Your task to perform on an android device: toggle airplane mode Image 0: 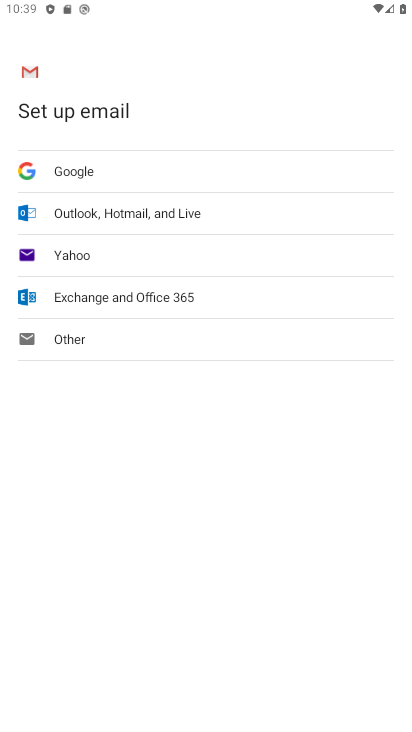
Step 0: press home button
Your task to perform on an android device: toggle airplane mode Image 1: 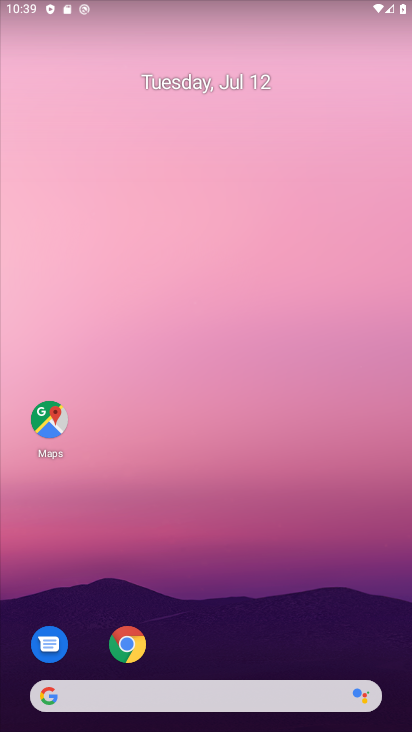
Step 1: drag from (246, 681) to (232, 294)
Your task to perform on an android device: toggle airplane mode Image 2: 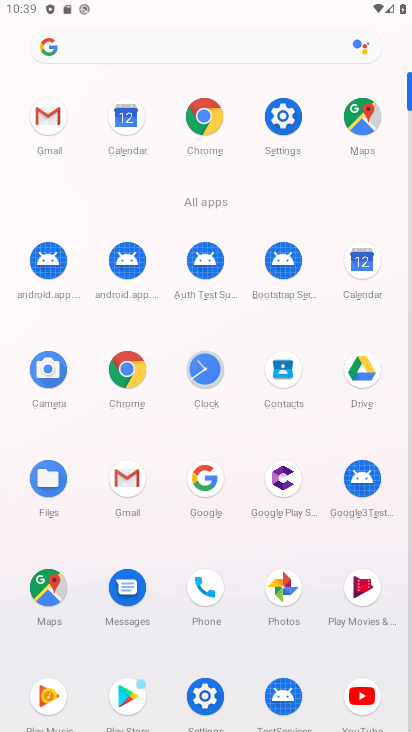
Step 2: click (281, 119)
Your task to perform on an android device: toggle airplane mode Image 3: 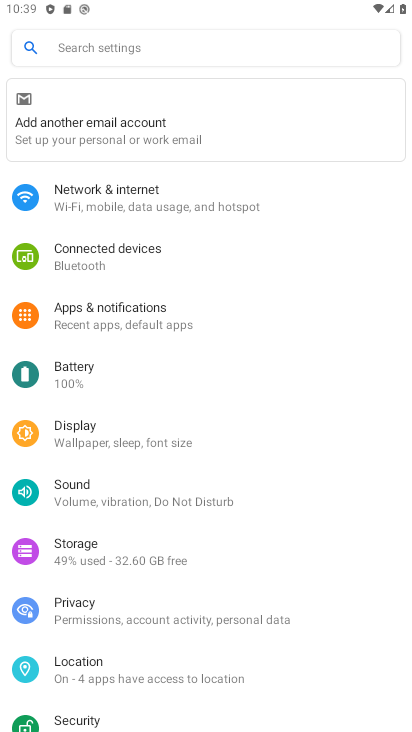
Step 3: click (147, 207)
Your task to perform on an android device: toggle airplane mode Image 4: 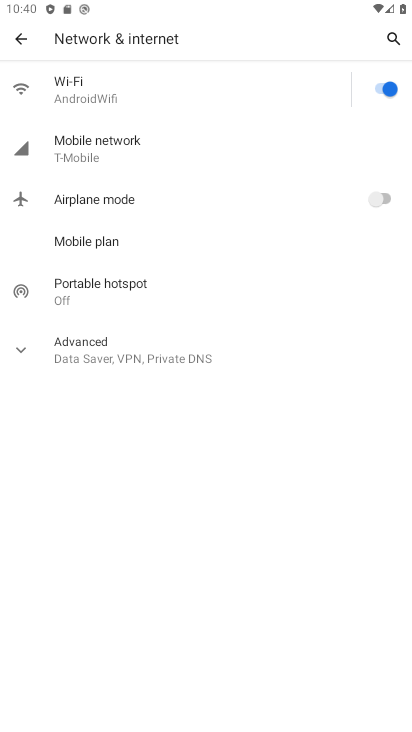
Step 4: click (379, 197)
Your task to perform on an android device: toggle airplane mode Image 5: 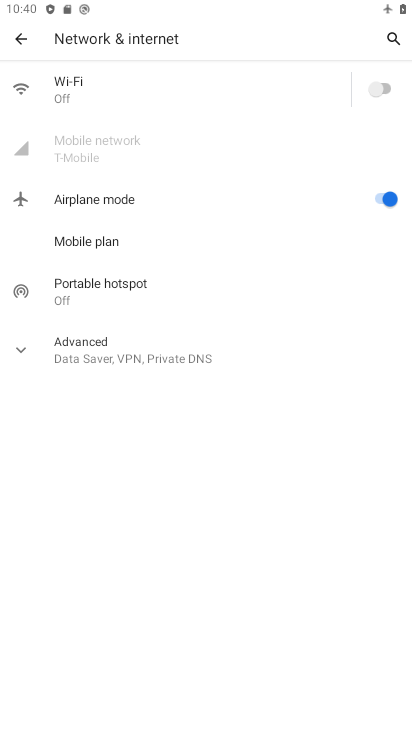
Step 5: task complete